Your task to perform on an android device: remove spam from my inbox in the gmail app Image 0: 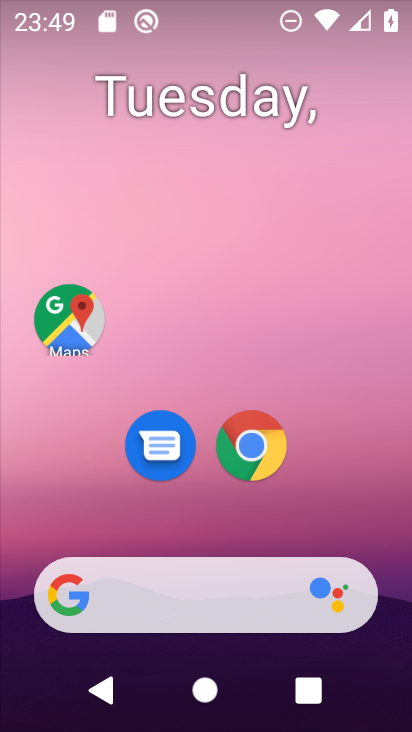
Step 0: drag from (244, 524) to (330, 21)
Your task to perform on an android device: remove spam from my inbox in the gmail app Image 1: 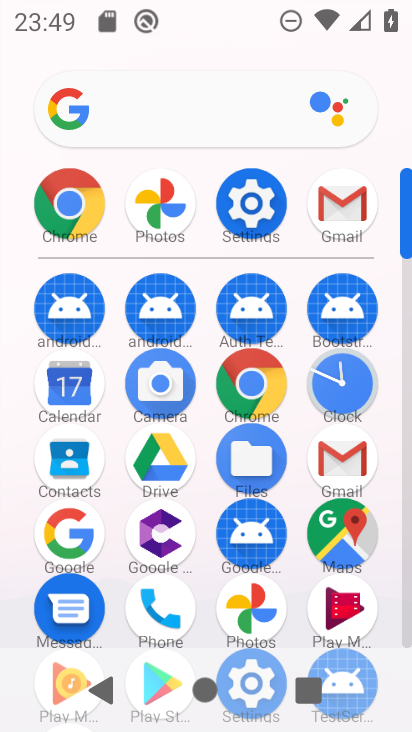
Step 1: click (344, 196)
Your task to perform on an android device: remove spam from my inbox in the gmail app Image 2: 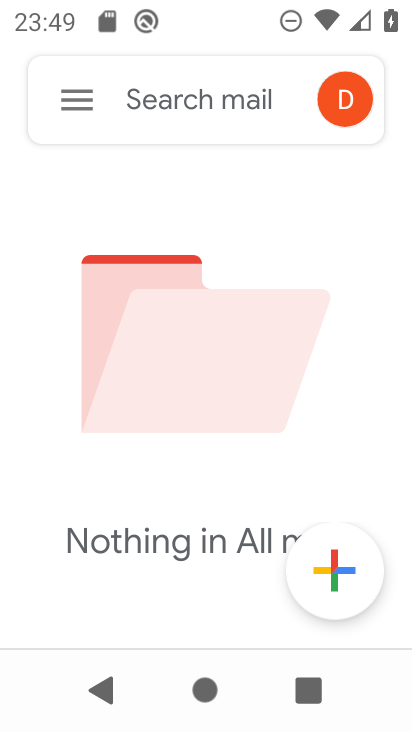
Step 2: click (82, 105)
Your task to perform on an android device: remove spam from my inbox in the gmail app Image 3: 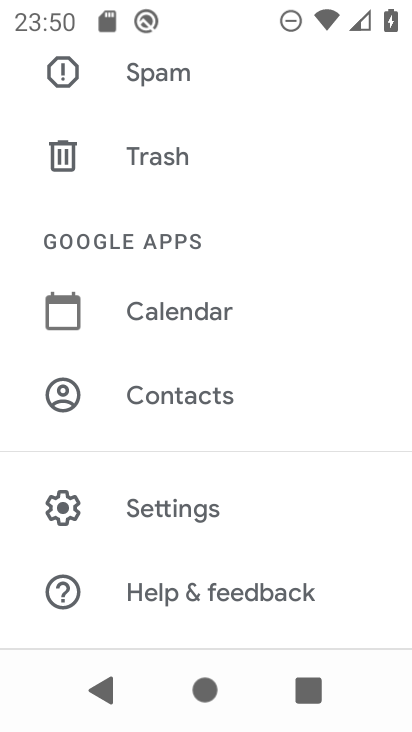
Step 3: click (237, 63)
Your task to perform on an android device: remove spam from my inbox in the gmail app Image 4: 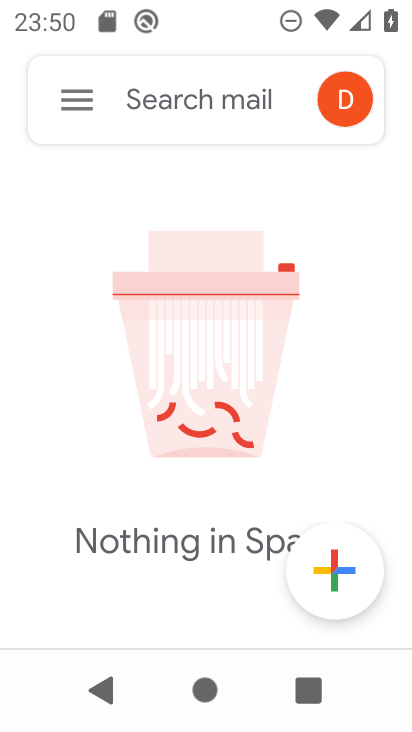
Step 4: task complete